Your task to perform on an android device: Is it going to rain today? Image 0: 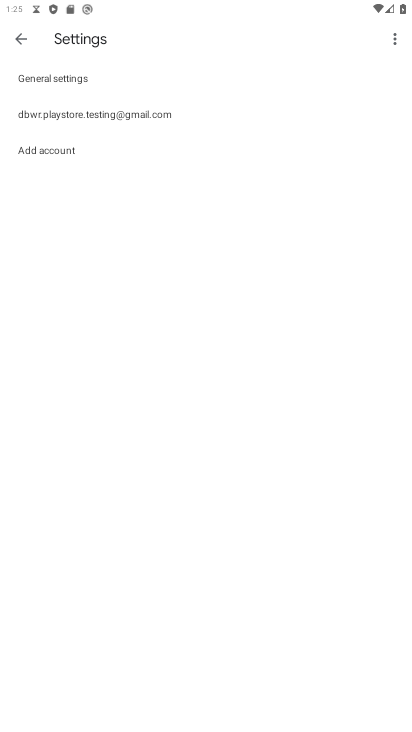
Step 0: press home button
Your task to perform on an android device: Is it going to rain today? Image 1: 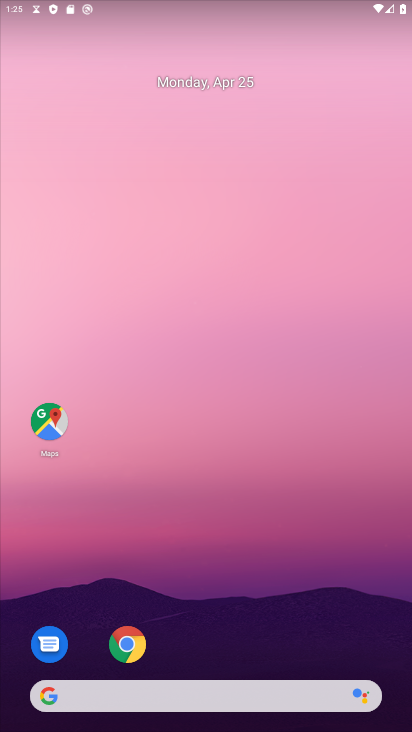
Step 1: click (131, 698)
Your task to perform on an android device: Is it going to rain today? Image 2: 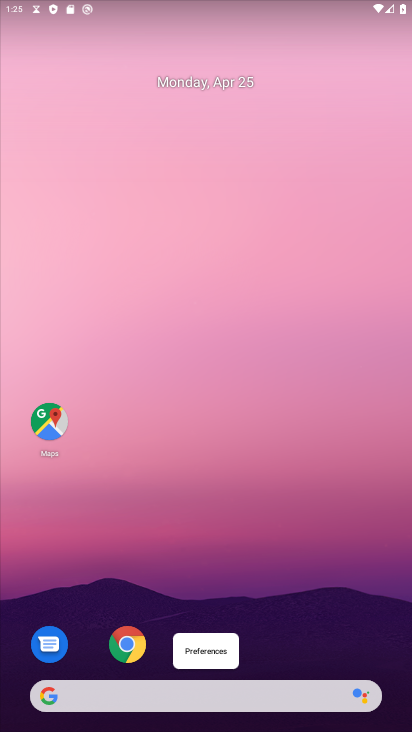
Step 2: click (97, 697)
Your task to perform on an android device: Is it going to rain today? Image 3: 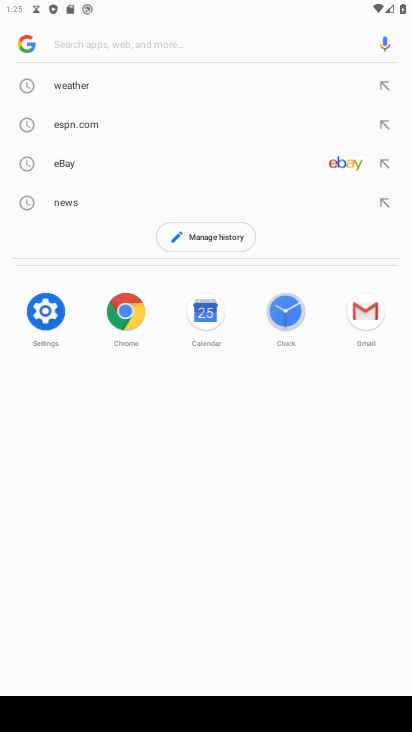
Step 3: click (66, 96)
Your task to perform on an android device: Is it going to rain today? Image 4: 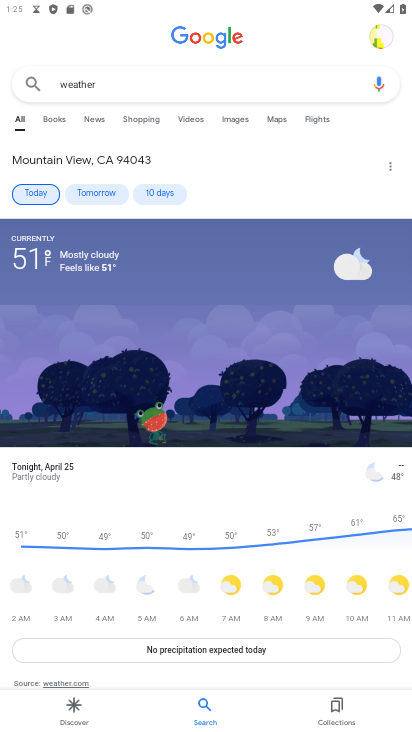
Step 4: task complete